Your task to perform on an android device: Set the phone to "Do not disturb". Image 0: 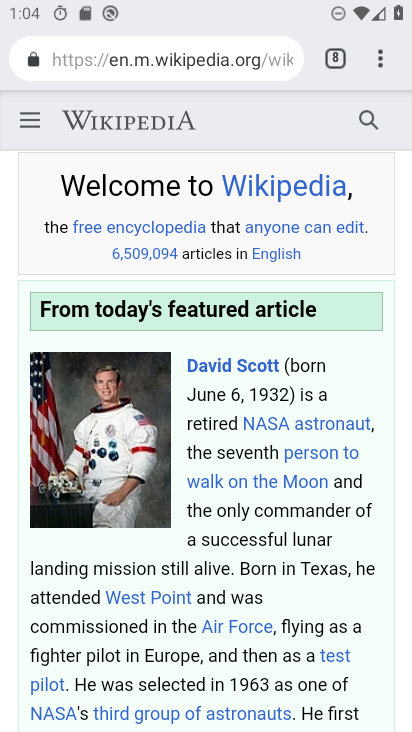
Step 0: press home button
Your task to perform on an android device: Set the phone to "Do not disturb". Image 1: 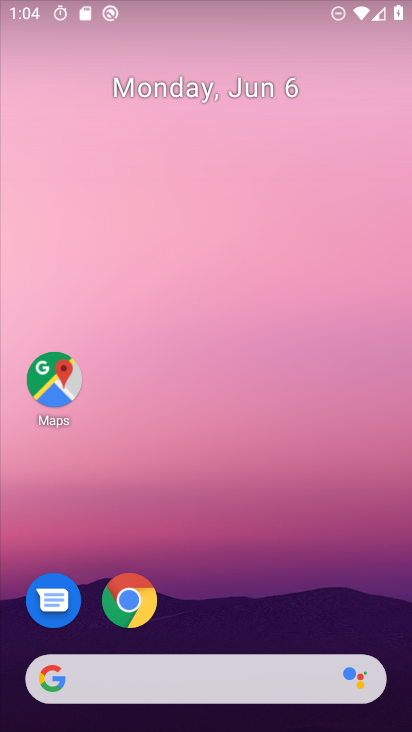
Step 1: drag from (230, 620) to (244, 183)
Your task to perform on an android device: Set the phone to "Do not disturb". Image 2: 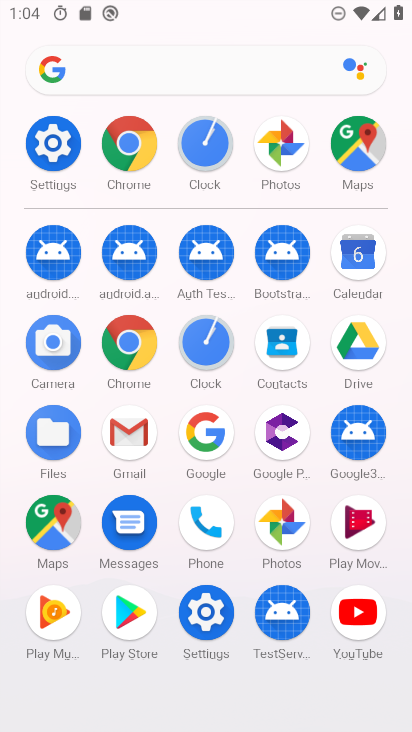
Step 2: click (61, 153)
Your task to perform on an android device: Set the phone to "Do not disturb". Image 3: 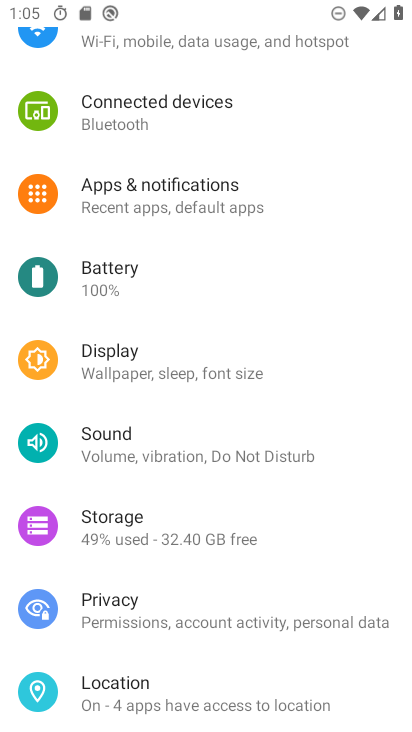
Step 3: click (188, 443)
Your task to perform on an android device: Set the phone to "Do not disturb". Image 4: 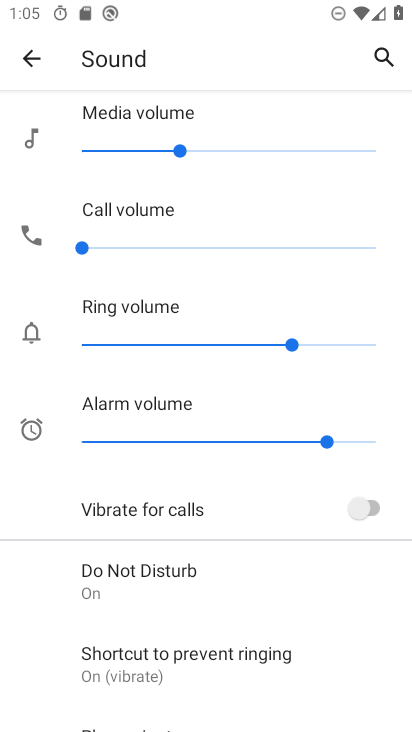
Step 4: drag from (156, 645) to (188, 531)
Your task to perform on an android device: Set the phone to "Do not disturb". Image 5: 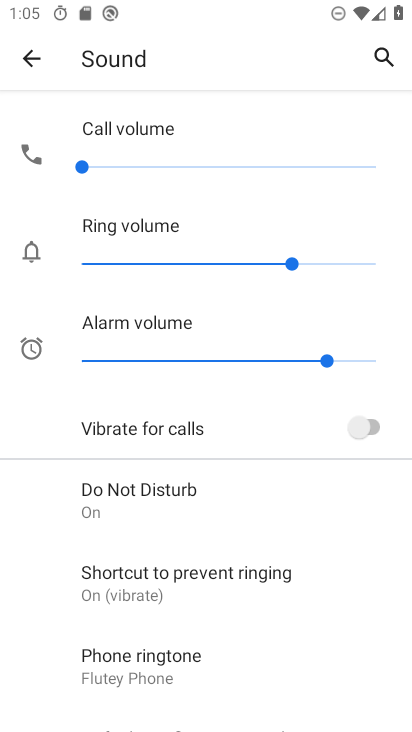
Step 5: click (169, 513)
Your task to perform on an android device: Set the phone to "Do not disturb". Image 6: 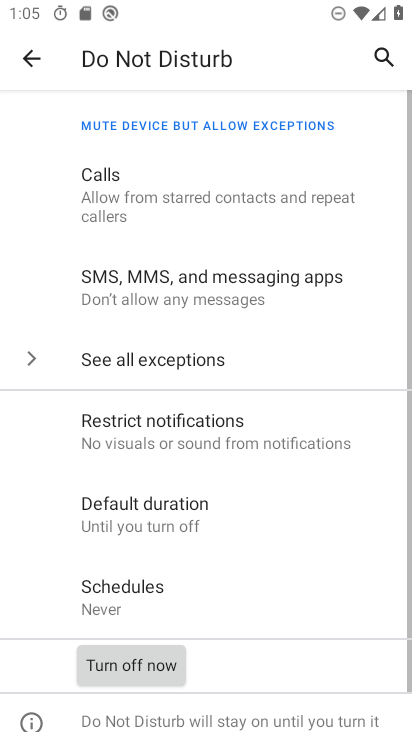
Step 6: task complete